Your task to perform on an android device: turn off location history Image 0: 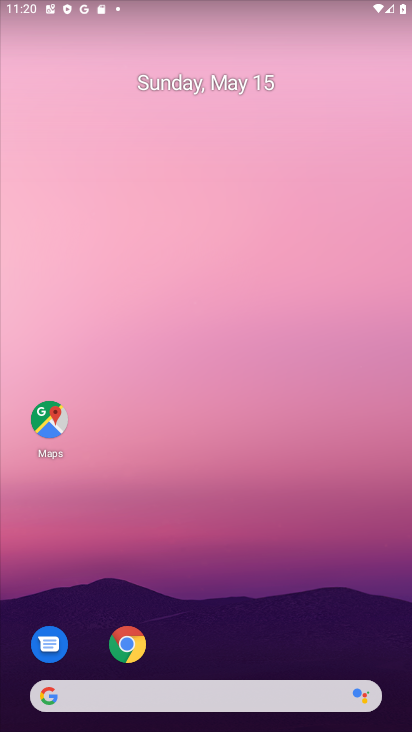
Step 0: drag from (186, 610) to (197, 48)
Your task to perform on an android device: turn off location history Image 1: 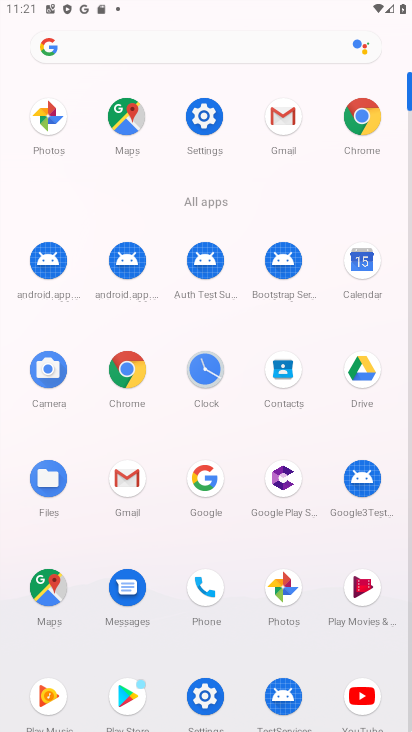
Step 1: click (194, 114)
Your task to perform on an android device: turn off location history Image 2: 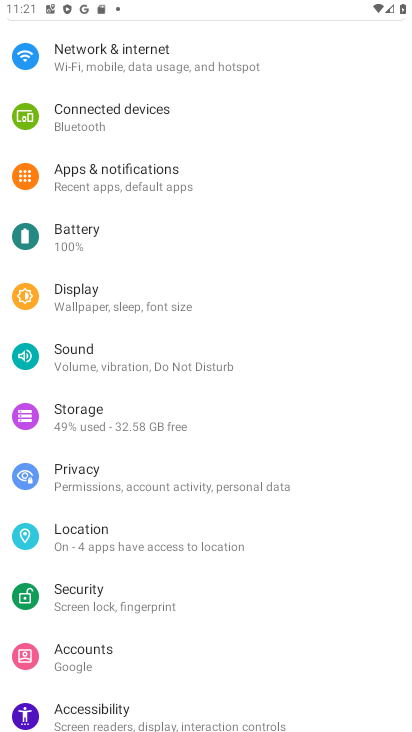
Step 2: click (121, 541)
Your task to perform on an android device: turn off location history Image 3: 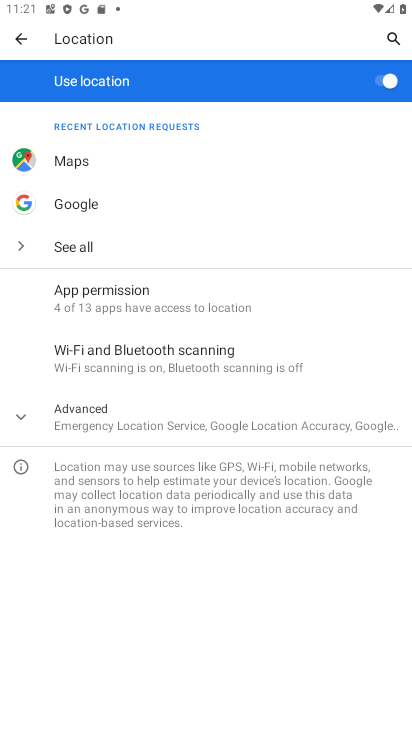
Step 3: drag from (100, 622) to (141, 477)
Your task to perform on an android device: turn off location history Image 4: 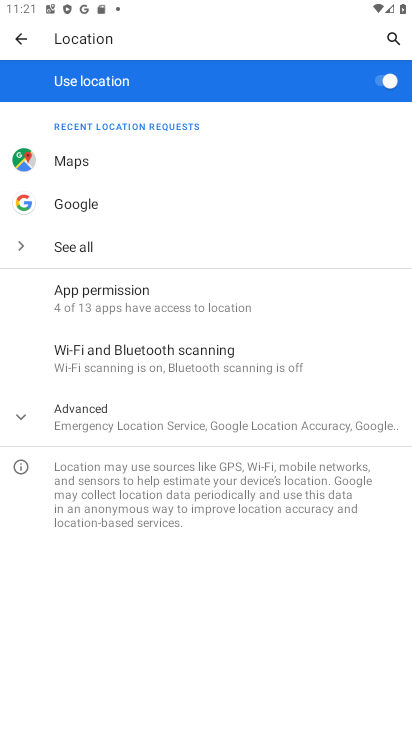
Step 4: click (92, 415)
Your task to perform on an android device: turn off location history Image 5: 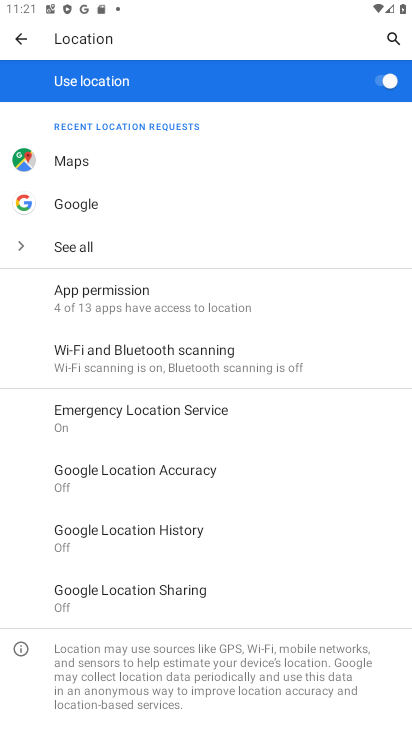
Step 5: click (153, 560)
Your task to perform on an android device: turn off location history Image 6: 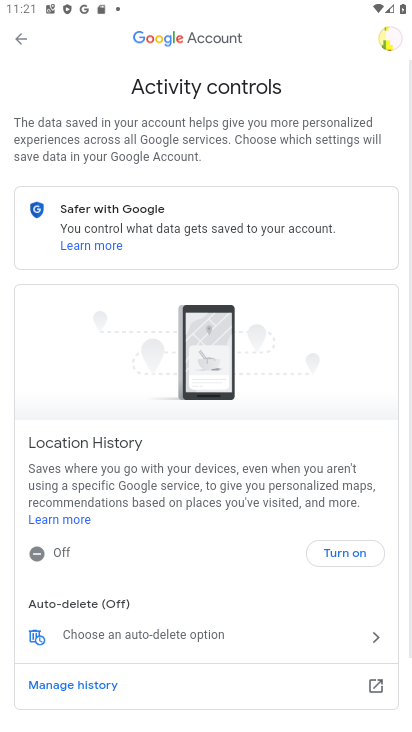
Step 6: drag from (281, 544) to (287, 197)
Your task to perform on an android device: turn off location history Image 7: 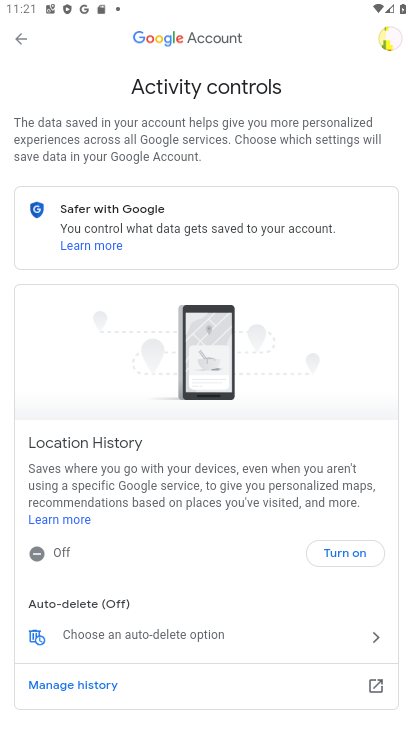
Step 7: click (351, 562)
Your task to perform on an android device: turn off location history Image 8: 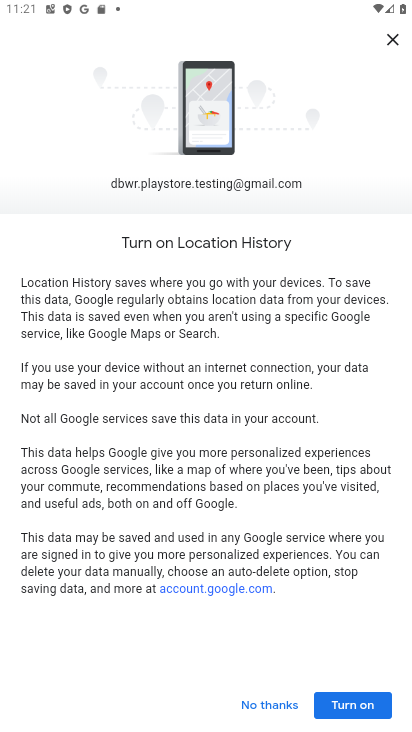
Step 8: click (267, 710)
Your task to perform on an android device: turn off location history Image 9: 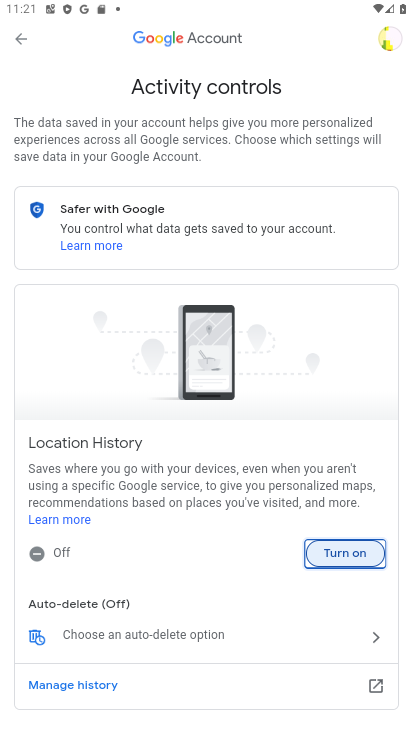
Step 9: task complete